Your task to perform on an android device: turn off data saver in the chrome app Image 0: 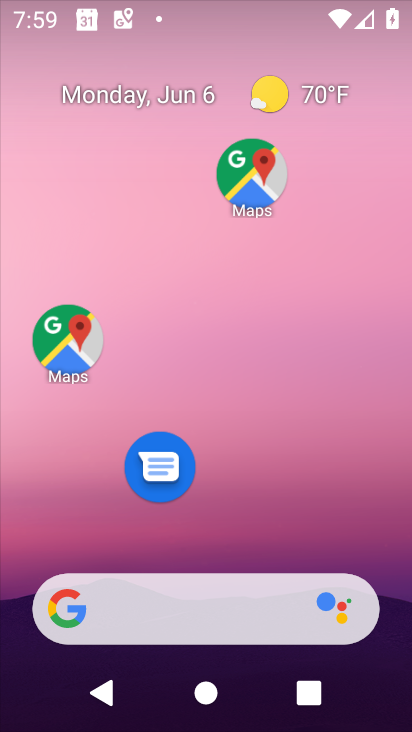
Step 0: press back button
Your task to perform on an android device: turn off data saver in the chrome app Image 1: 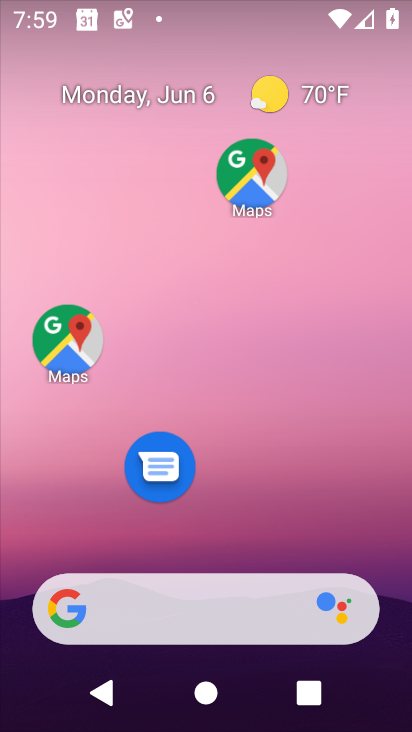
Step 1: drag from (265, 692) to (121, 25)
Your task to perform on an android device: turn off data saver in the chrome app Image 2: 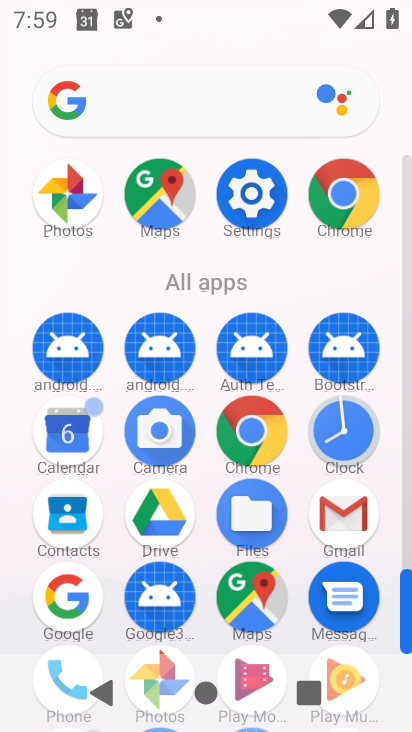
Step 2: click (342, 201)
Your task to perform on an android device: turn off data saver in the chrome app Image 3: 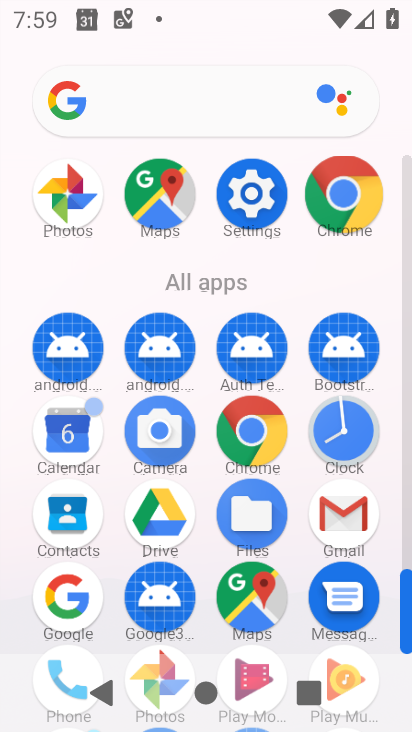
Step 3: click (323, 213)
Your task to perform on an android device: turn off data saver in the chrome app Image 4: 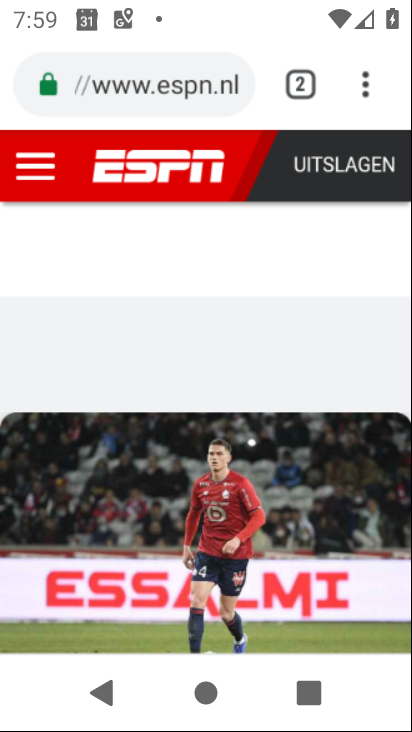
Step 4: click (326, 208)
Your task to perform on an android device: turn off data saver in the chrome app Image 5: 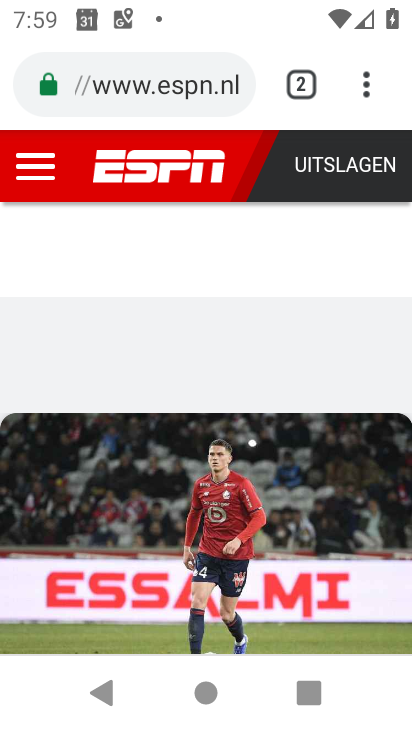
Step 5: click (367, 87)
Your task to perform on an android device: turn off data saver in the chrome app Image 6: 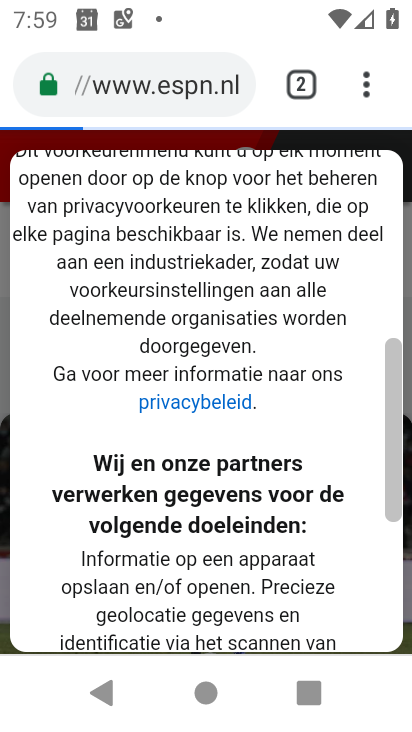
Step 6: click (364, 85)
Your task to perform on an android device: turn off data saver in the chrome app Image 7: 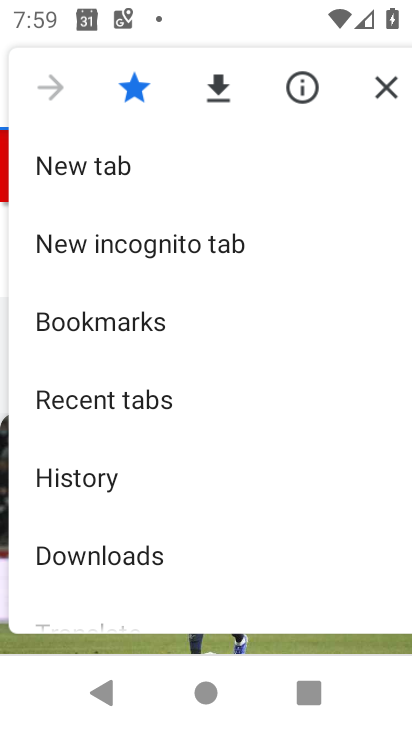
Step 7: drag from (89, 462) to (91, 181)
Your task to perform on an android device: turn off data saver in the chrome app Image 8: 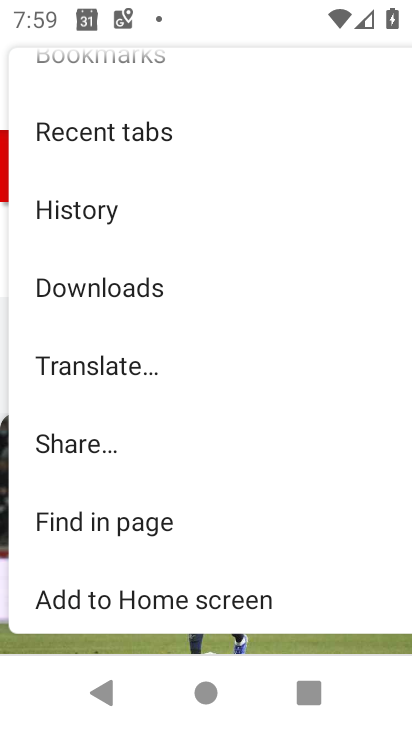
Step 8: drag from (86, 419) to (76, 356)
Your task to perform on an android device: turn off data saver in the chrome app Image 9: 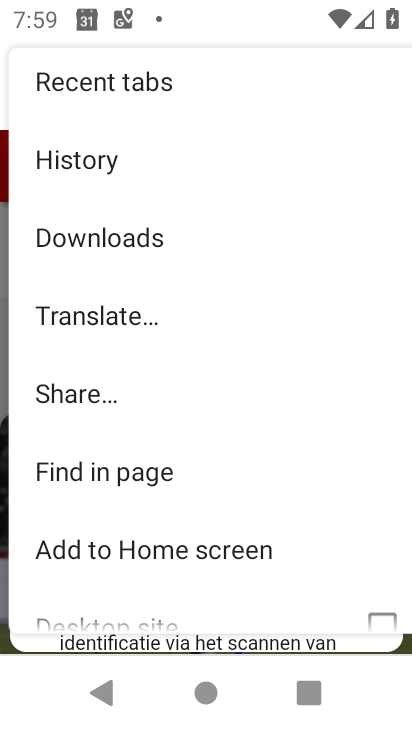
Step 9: drag from (124, 509) to (83, 45)
Your task to perform on an android device: turn off data saver in the chrome app Image 10: 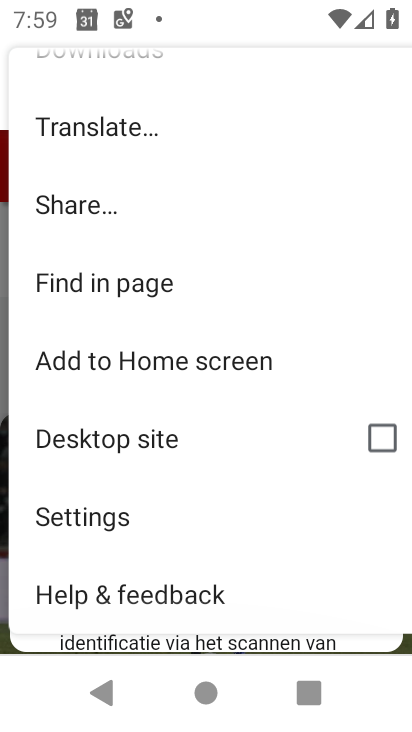
Step 10: drag from (94, 361) to (86, 149)
Your task to perform on an android device: turn off data saver in the chrome app Image 11: 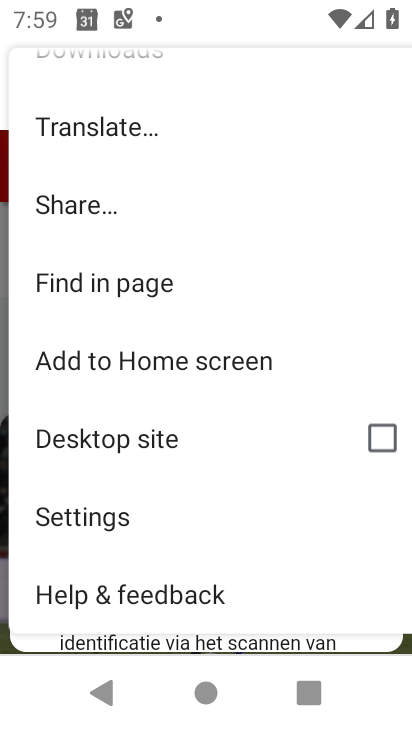
Step 11: click (74, 516)
Your task to perform on an android device: turn off data saver in the chrome app Image 12: 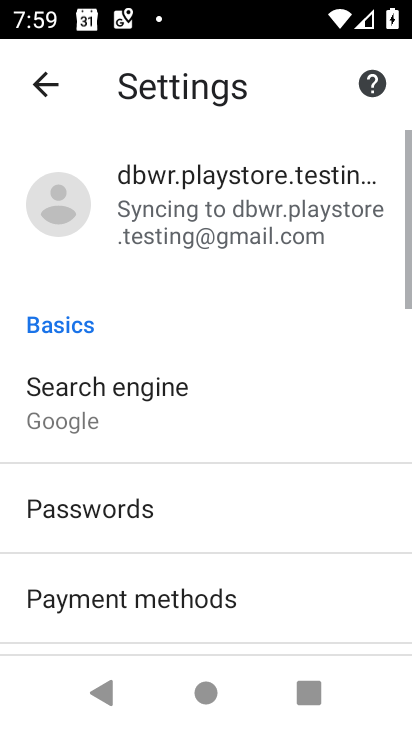
Step 12: drag from (116, 485) to (88, 156)
Your task to perform on an android device: turn off data saver in the chrome app Image 13: 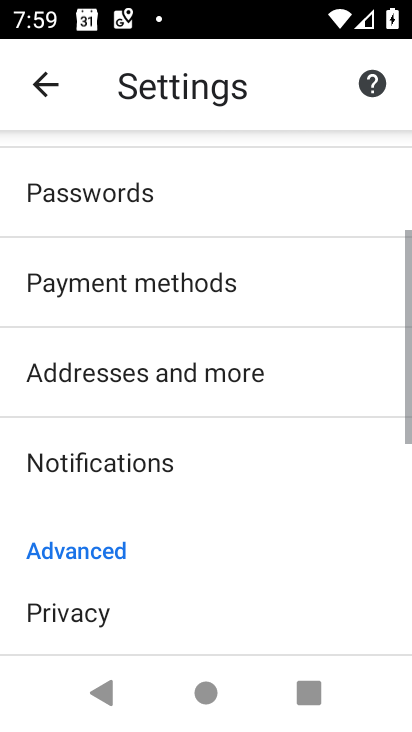
Step 13: drag from (137, 421) to (137, 134)
Your task to perform on an android device: turn off data saver in the chrome app Image 14: 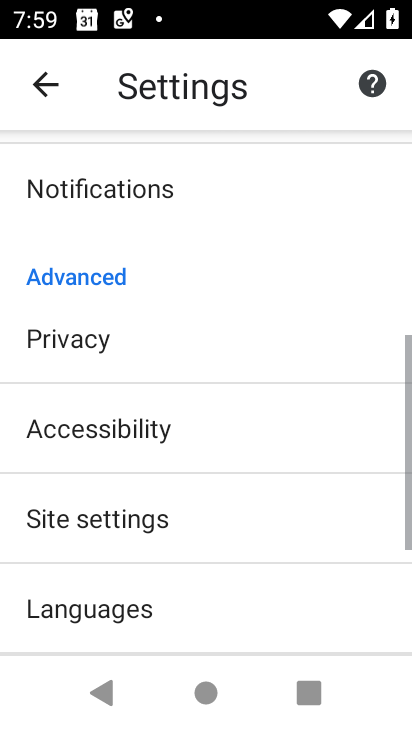
Step 14: drag from (165, 301) to (149, 179)
Your task to perform on an android device: turn off data saver in the chrome app Image 15: 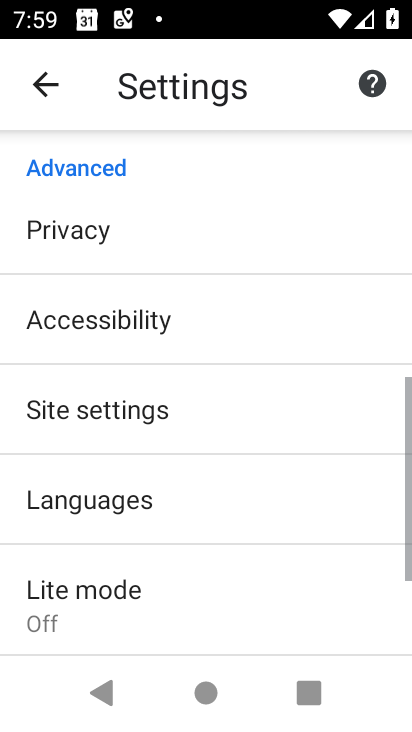
Step 15: drag from (100, 416) to (87, 221)
Your task to perform on an android device: turn off data saver in the chrome app Image 16: 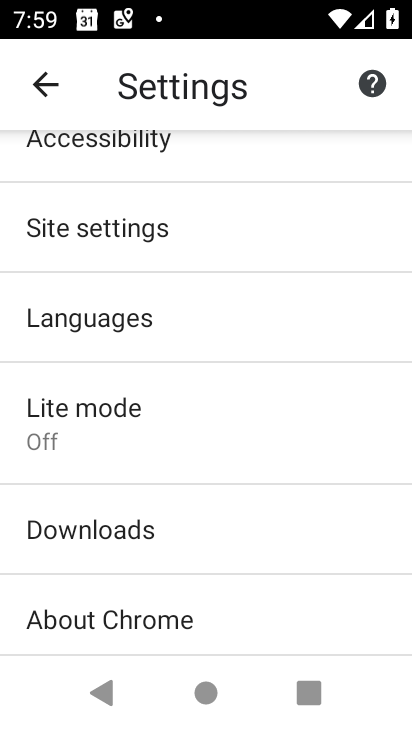
Step 16: click (74, 409)
Your task to perform on an android device: turn off data saver in the chrome app Image 17: 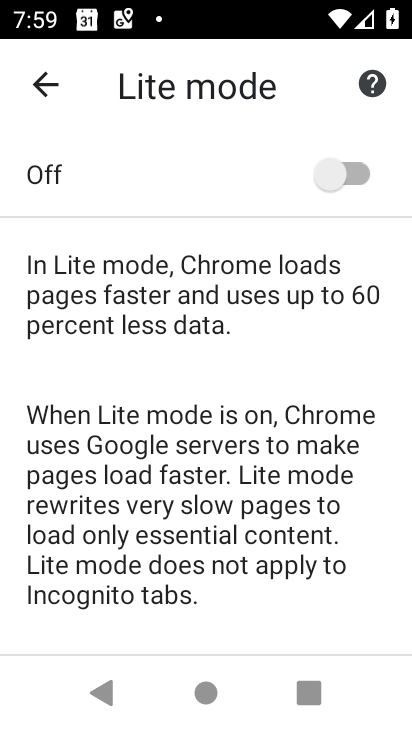
Step 17: task complete